Your task to perform on an android device: Search for Italian restaurants on Maps Image 0: 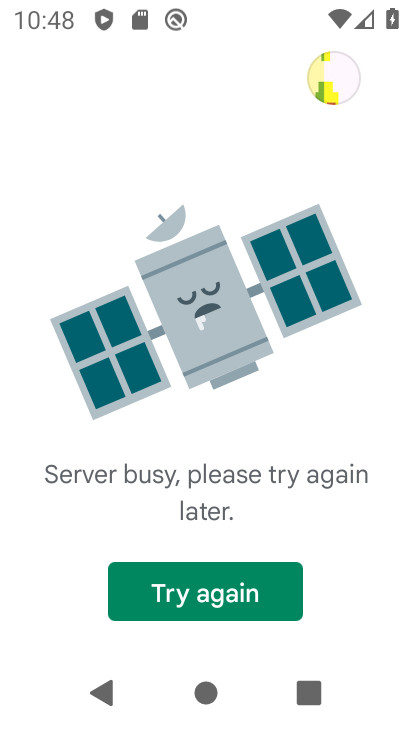
Step 0: press home button
Your task to perform on an android device: Search for Italian restaurants on Maps Image 1: 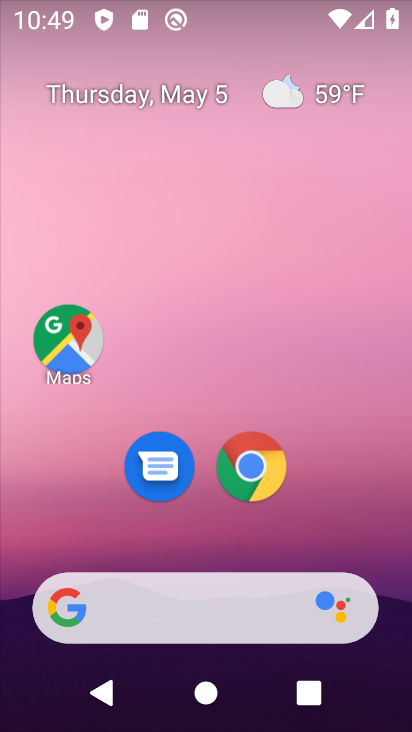
Step 1: drag from (385, 543) to (358, 92)
Your task to perform on an android device: Search for Italian restaurants on Maps Image 2: 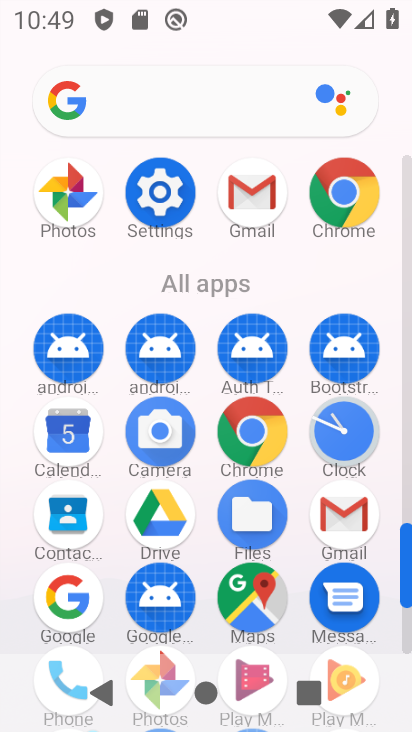
Step 2: drag from (295, 287) to (264, 110)
Your task to perform on an android device: Search for Italian restaurants on Maps Image 3: 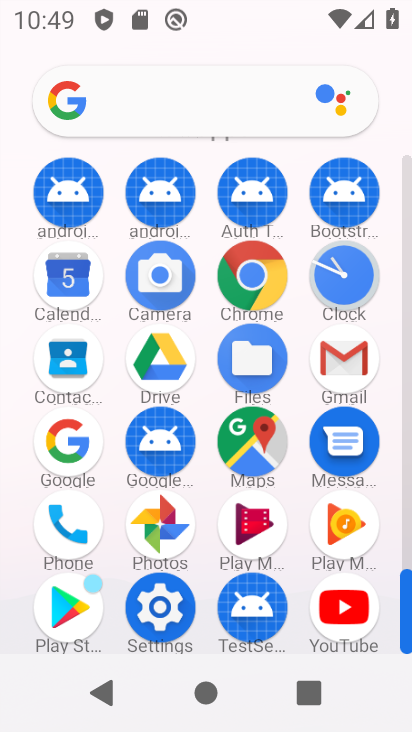
Step 3: drag from (206, 622) to (215, 252)
Your task to perform on an android device: Search for Italian restaurants on Maps Image 4: 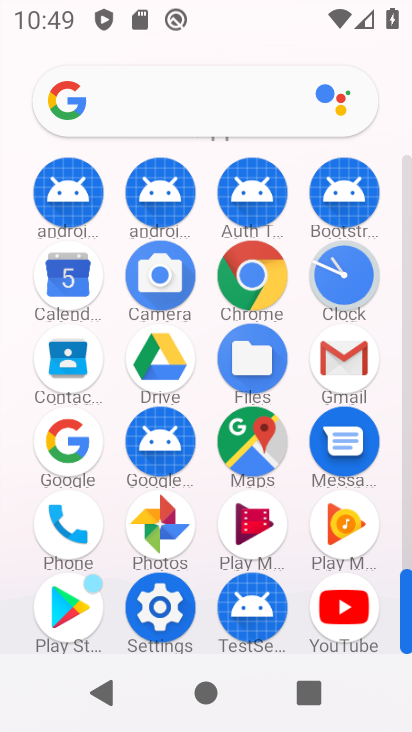
Step 4: drag from (284, 465) to (289, 326)
Your task to perform on an android device: Search for Italian restaurants on Maps Image 5: 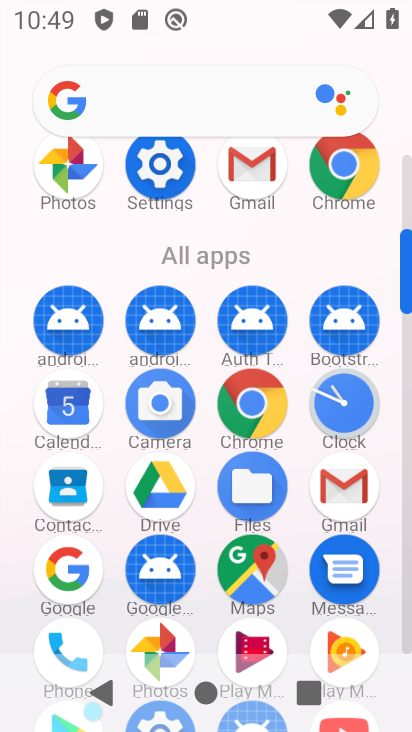
Step 5: click (250, 563)
Your task to perform on an android device: Search for Italian restaurants on Maps Image 6: 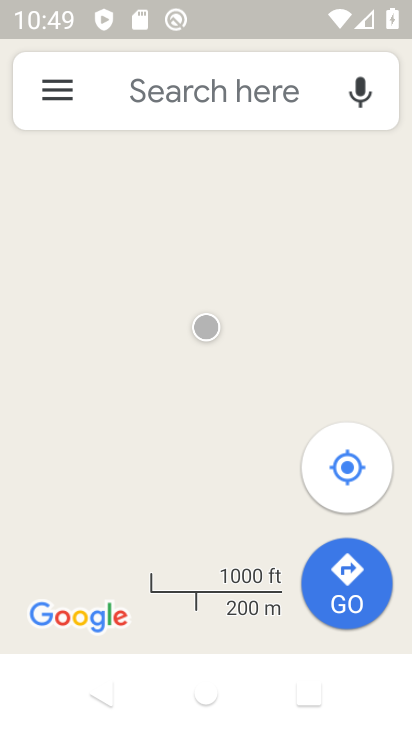
Step 6: click (303, 105)
Your task to perform on an android device: Search for Italian restaurants on Maps Image 7: 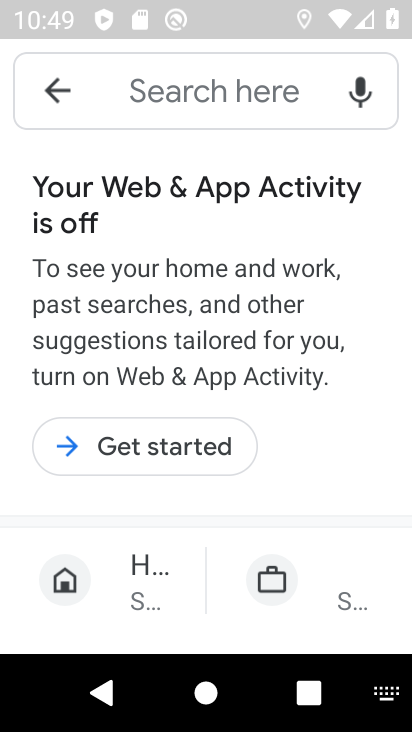
Step 7: click (186, 99)
Your task to perform on an android device: Search for Italian restaurants on Maps Image 8: 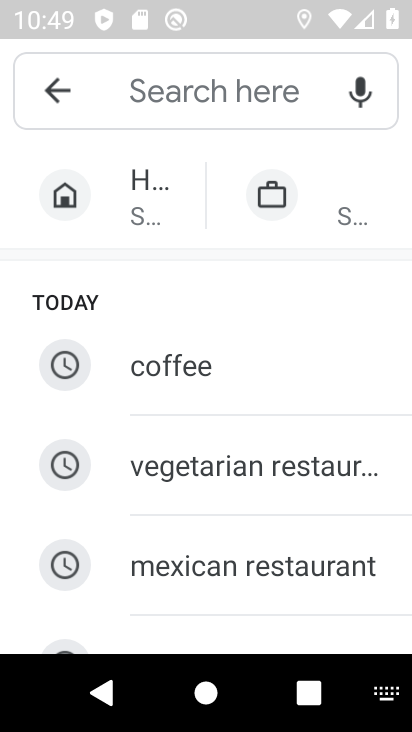
Step 8: type "italian"
Your task to perform on an android device: Search for Italian restaurants on Maps Image 9: 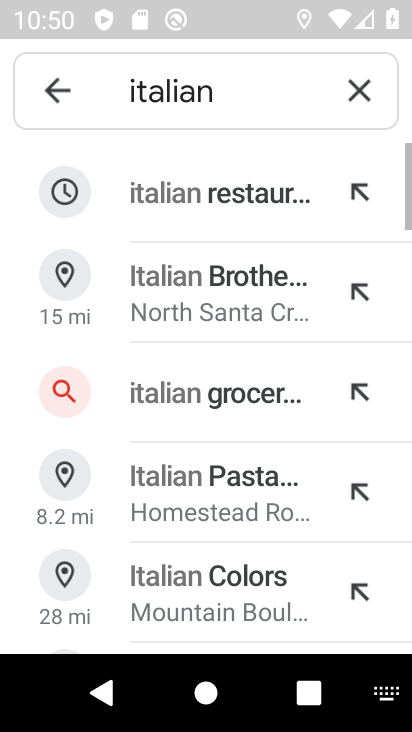
Step 9: click (195, 189)
Your task to perform on an android device: Search for Italian restaurants on Maps Image 10: 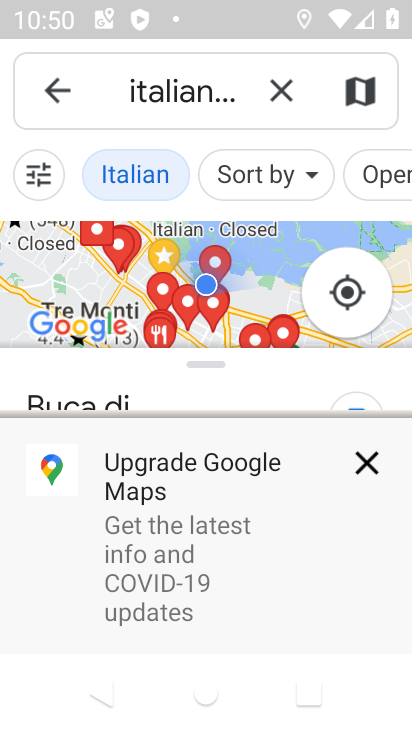
Step 10: task complete